Your task to perform on an android device: Open the phone app and click the voicemail tab. Image 0: 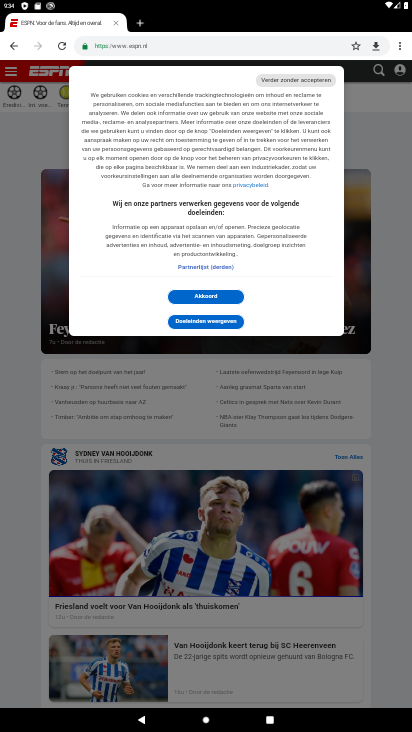
Step 0: press home button
Your task to perform on an android device: Open the phone app and click the voicemail tab. Image 1: 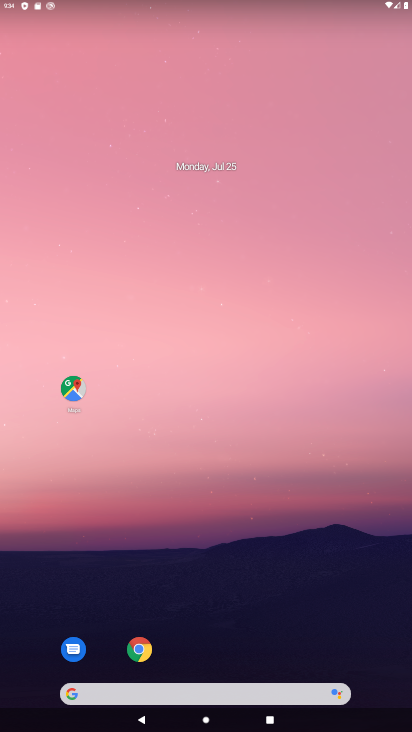
Step 1: drag from (211, 457) to (375, 5)
Your task to perform on an android device: Open the phone app and click the voicemail tab. Image 2: 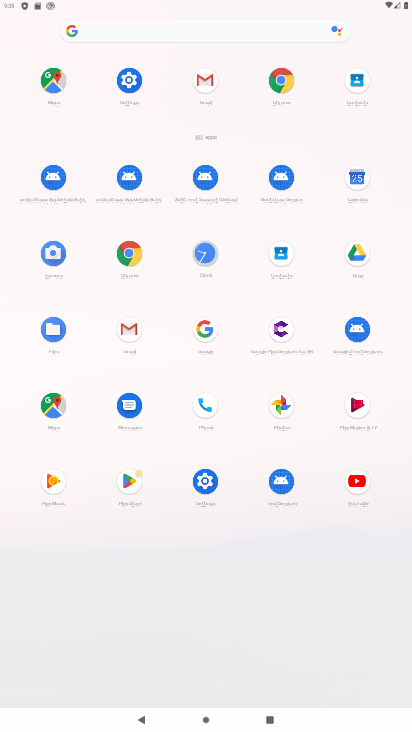
Step 2: click (208, 405)
Your task to perform on an android device: Open the phone app and click the voicemail tab. Image 3: 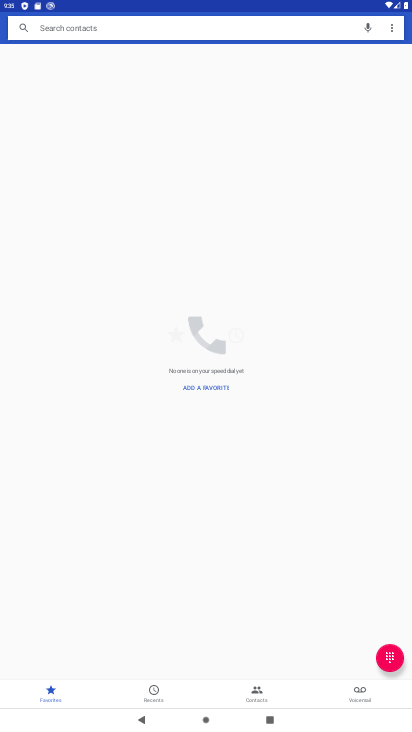
Step 3: click (362, 696)
Your task to perform on an android device: Open the phone app and click the voicemail tab. Image 4: 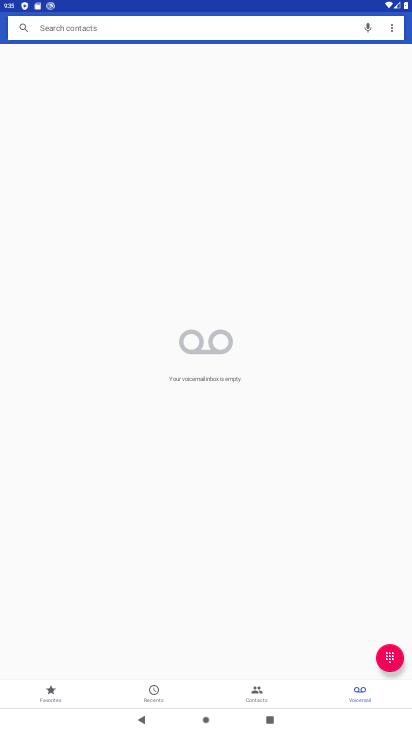
Step 4: task complete